Your task to perform on an android device: Play the last video I watched on Youtube Image 0: 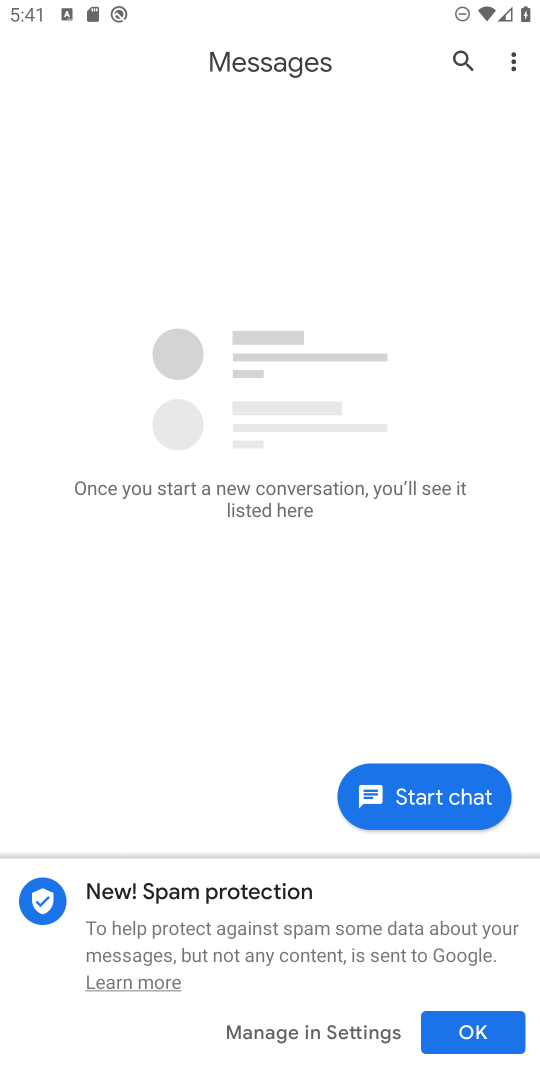
Step 0: press home button
Your task to perform on an android device: Play the last video I watched on Youtube Image 1: 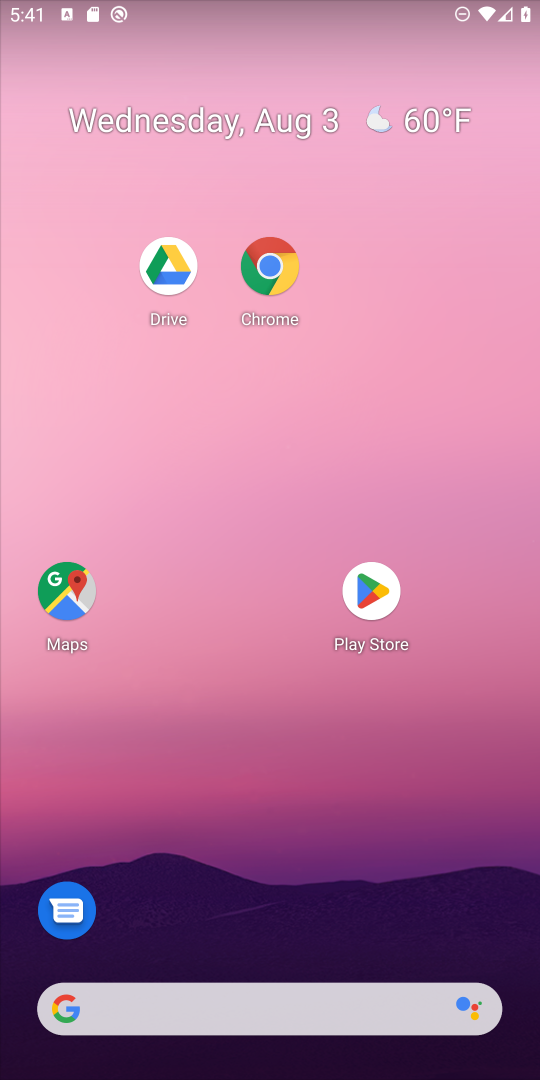
Step 1: drag from (346, 1010) to (499, 673)
Your task to perform on an android device: Play the last video I watched on Youtube Image 2: 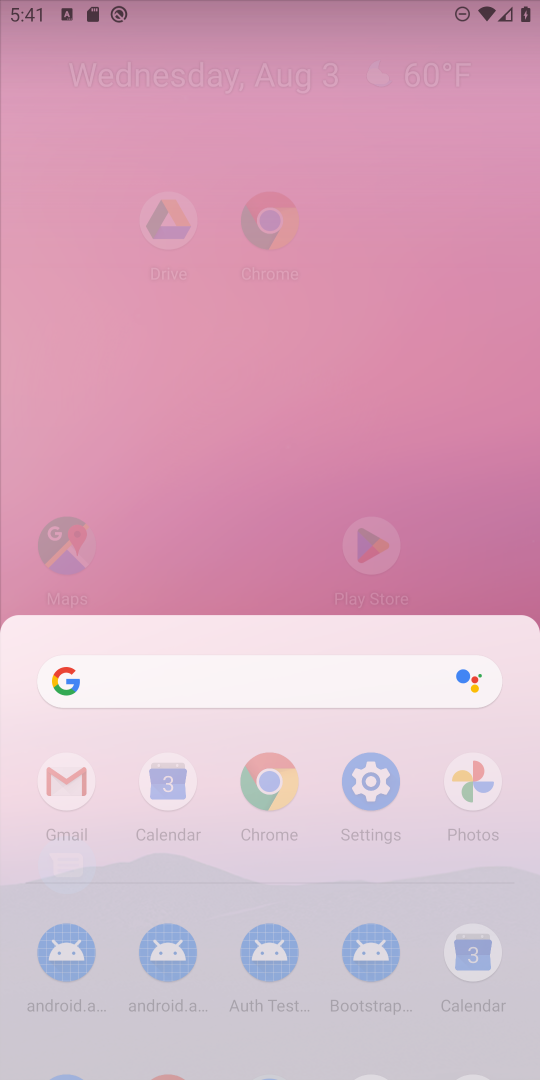
Step 2: click (480, 944)
Your task to perform on an android device: Play the last video I watched on Youtube Image 3: 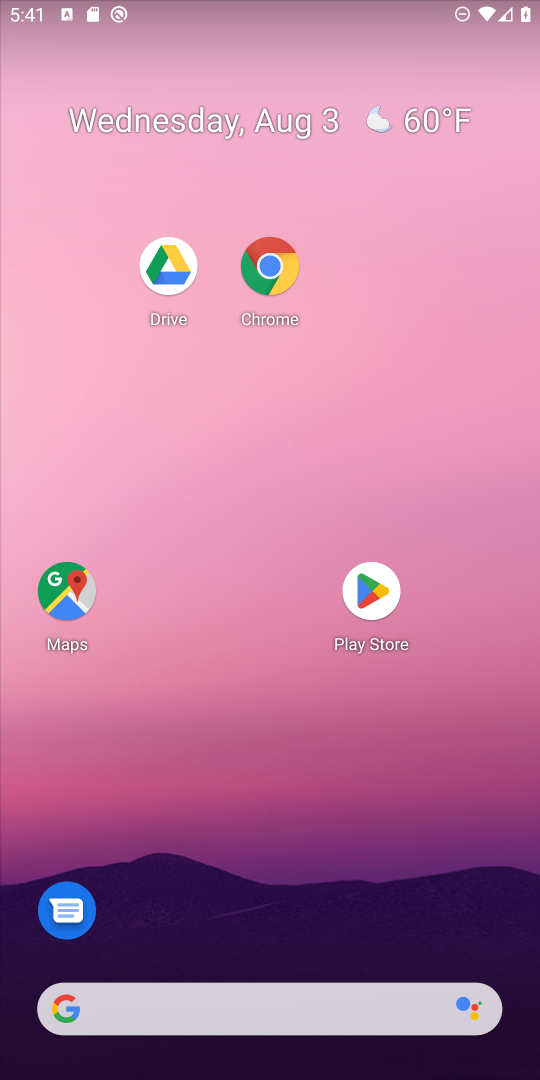
Step 3: drag from (450, 960) to (535, 934)
Your task to perform on an android device: Play the last video I watched on Youtube Image 4: 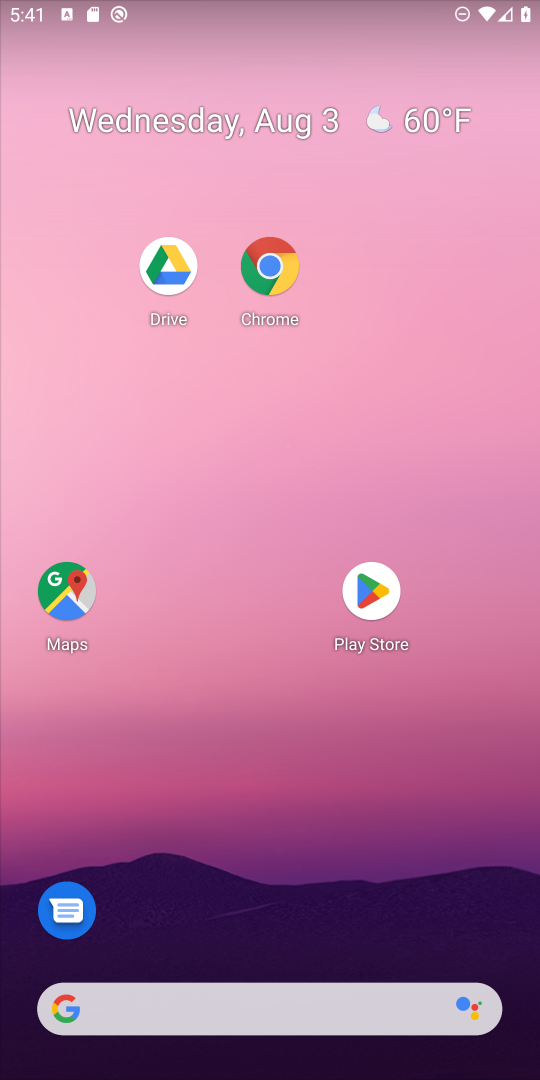
Step 4: drag from (401, 863) to (538, 136)
Your task to perform on an android device: Play the last video I watched on Youtube Image 5: 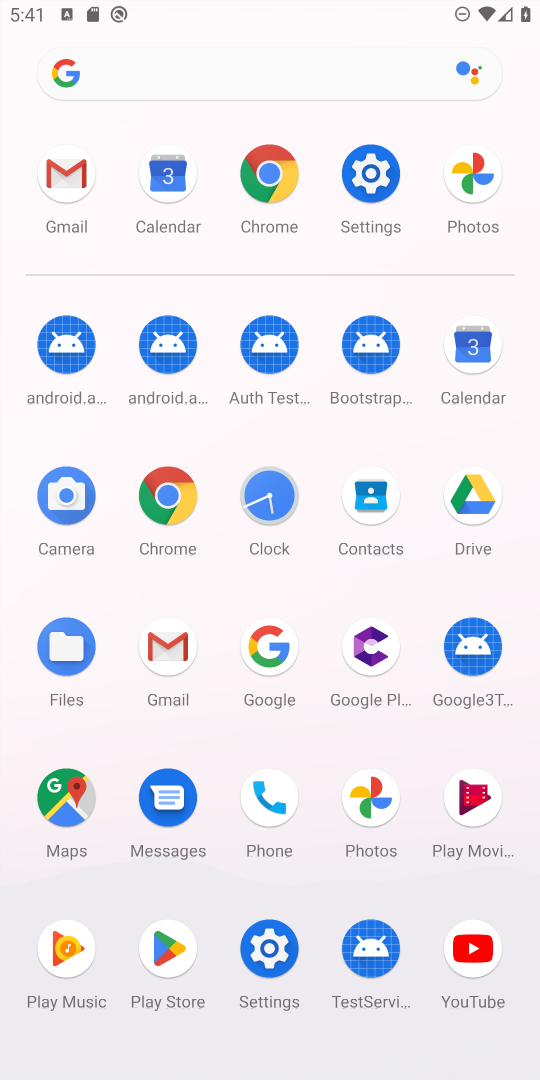
Step 5: click (457, 952)
Your task to perform on an android device: Play the last video I watched on Youtube Image 6: 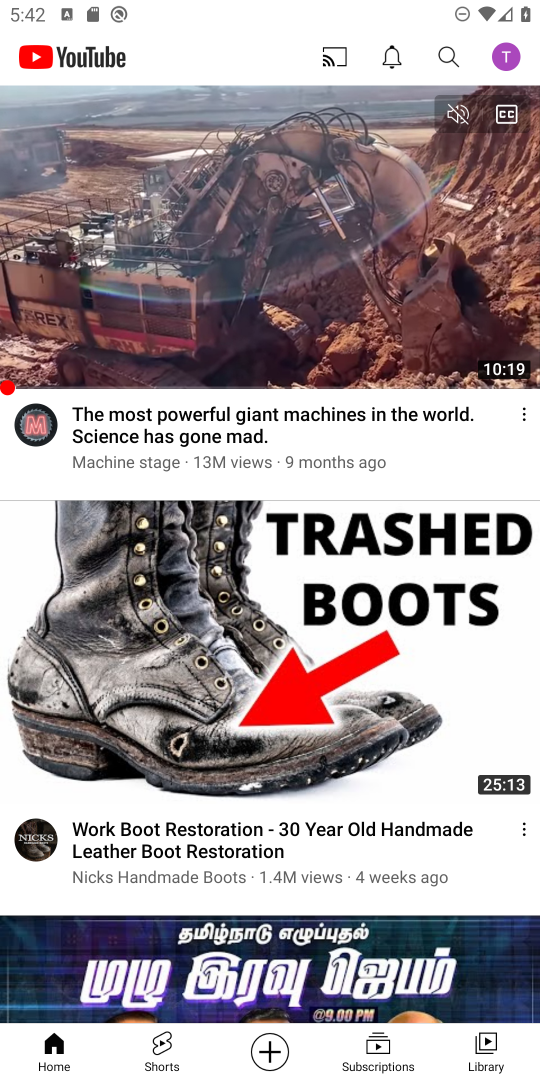
Step 6: click (484, 1029)
Your task to perform on an android device: Play the last video I watched on Youtube Image 7: 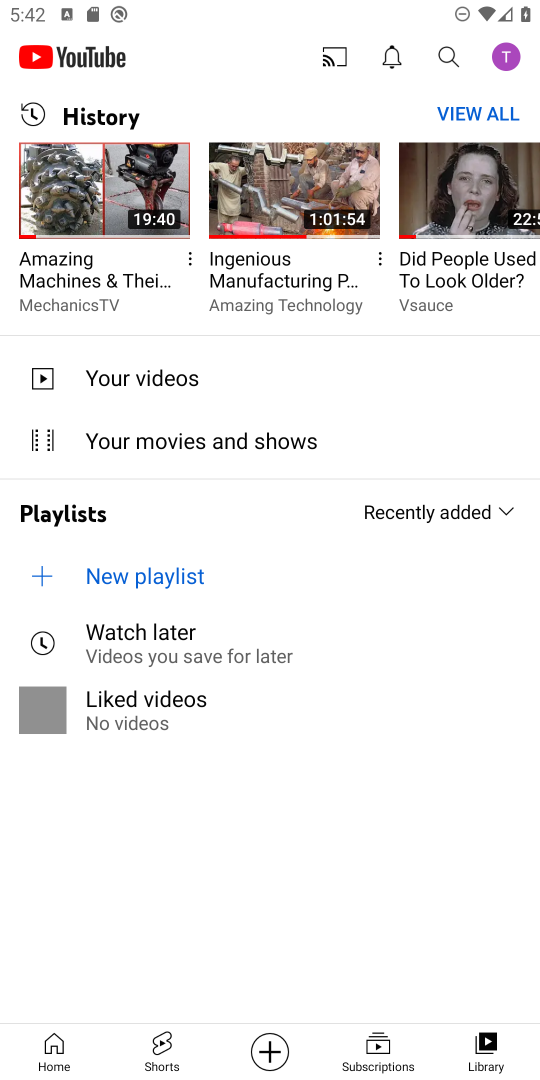
Step 7: click (110, 178)
Your task to perform on an android device: Play the last video I watched on Youtube Image 8: 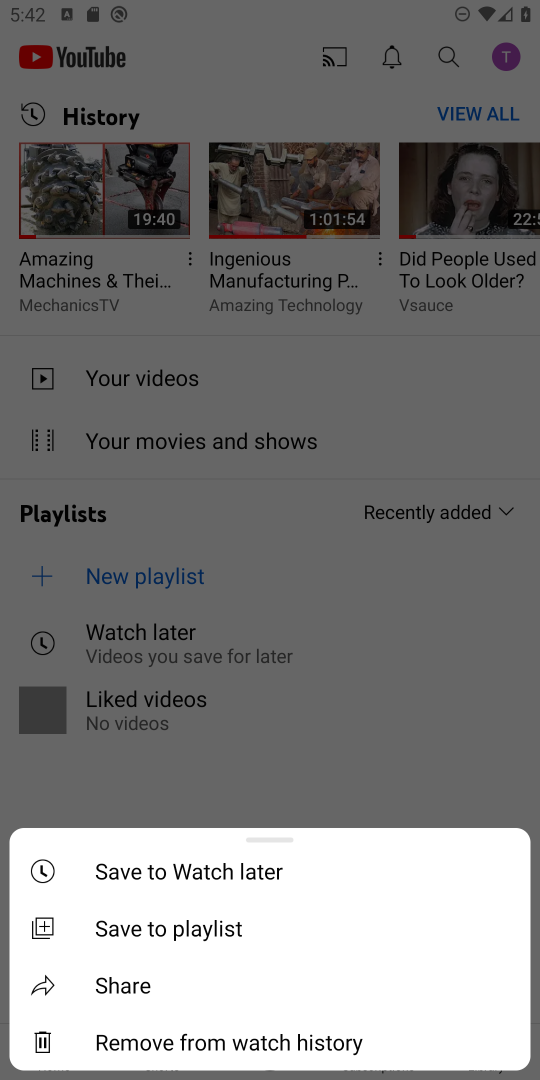
Step 8: click (182, 504)
Your task to perform on an android device: Play the last video I watched on Youtube Image 9: 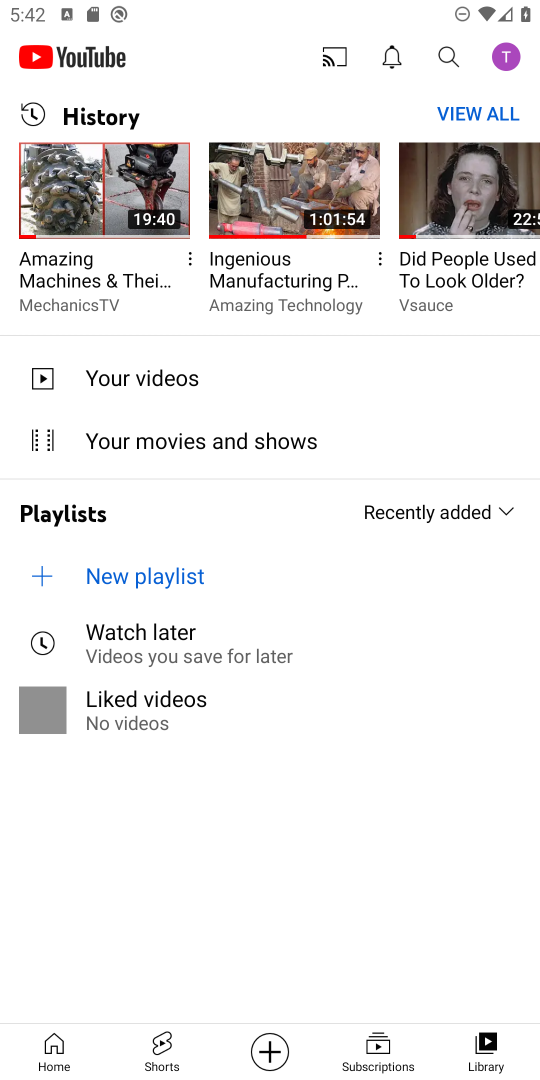
Step 9: click (115, 195)
Your task to perform on an android device: Play the last video I watched on Youtube Image 10: 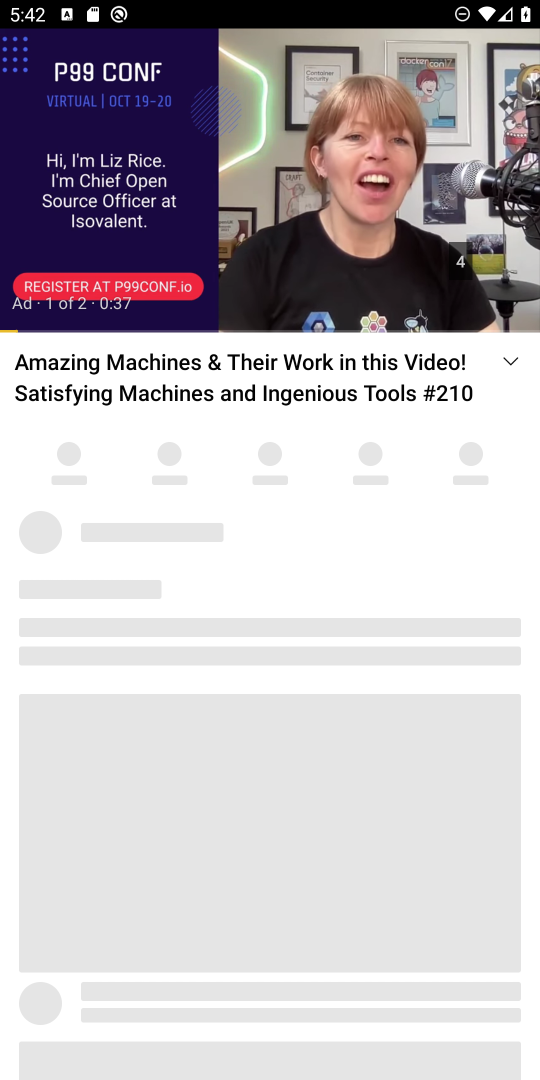
Step 10: task complete